Your task to perform on an android device: toggle notification dots Image 0: 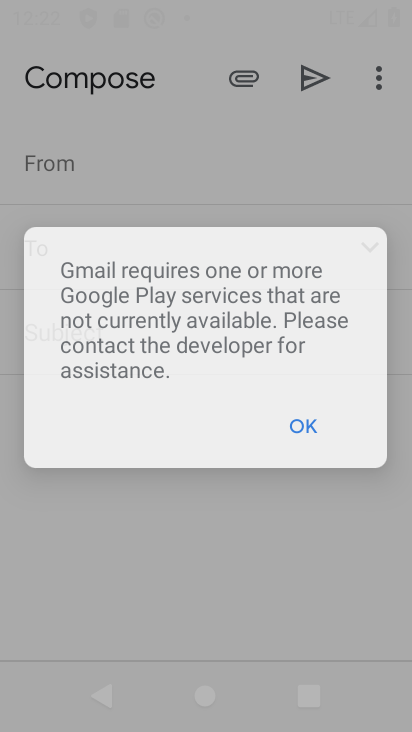
Step 0: drag from (278, 698) to (261, 227)
Your task to perform on an android device: toggle notification dots Image 1: 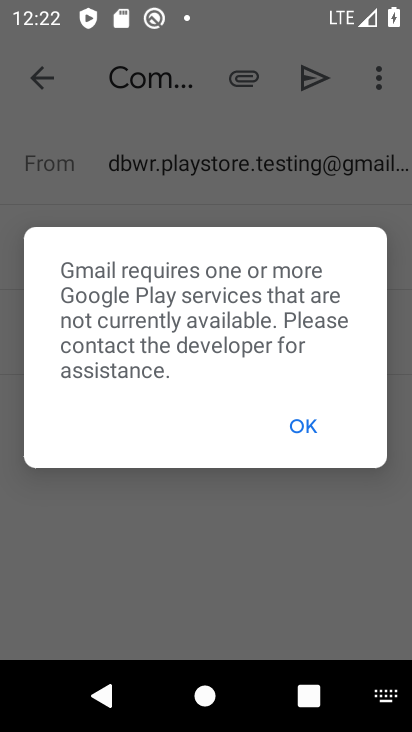
Step 1: click (304, 431)
Your task to perform on an android device: toggle notification dots Image 2: 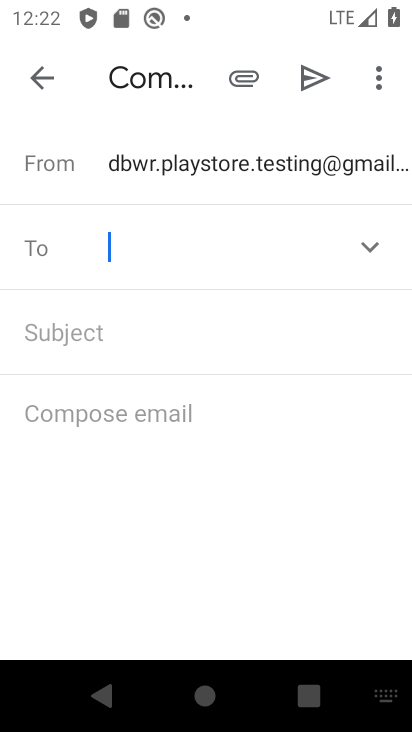
Step 2: click (294, 388)
Your task to perform on an android device: toggle notification dots Image 3: 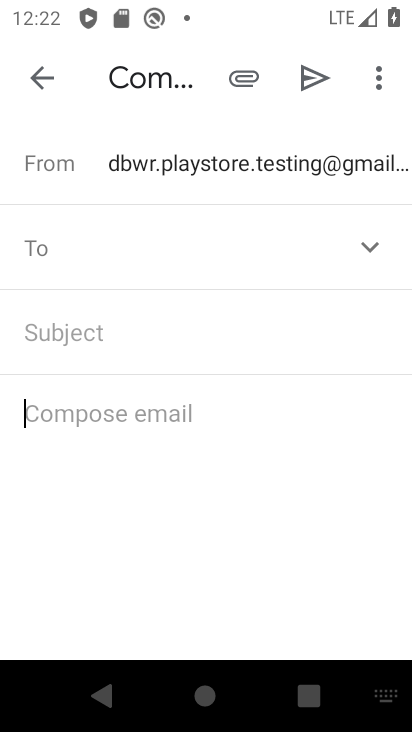
Step 3: click (47, 69)
Your task to perform on an android device: toggle notification dots Image 4: 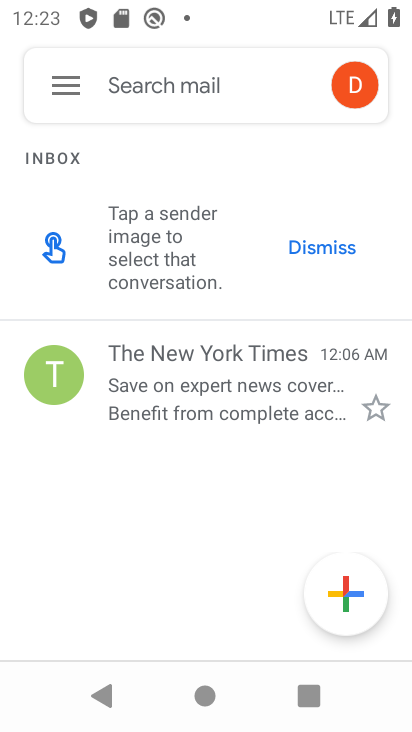
Step 4: press home button
Your task to perform on an android device: toggle notification dots Image 5: 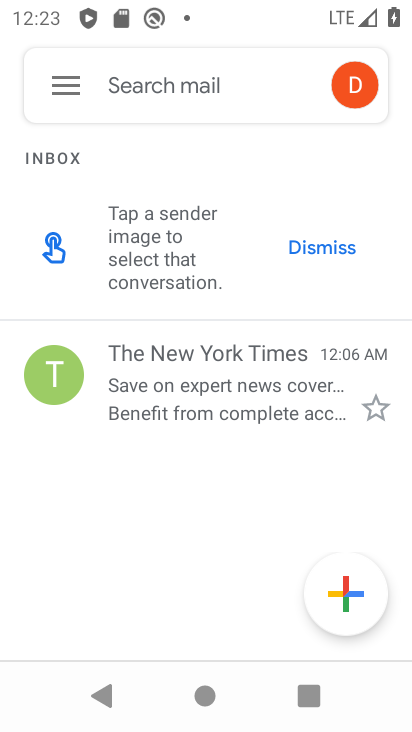
Step 5: press home button
Your task to perform on an android device: toggle notification dots Image 6: 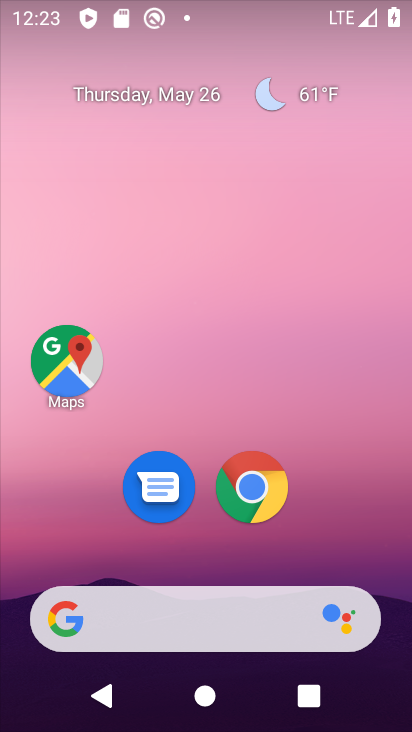
Step 6: drag from (275, 653) to (149, 118)
Your task to perform on an android device: toggle notification dots Image 7: 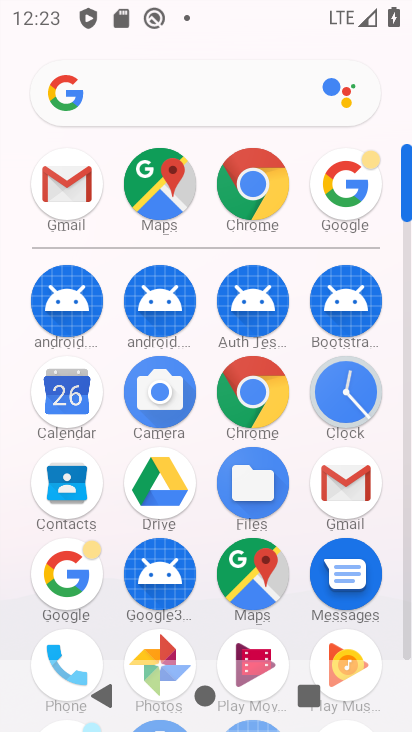
Step 7: click (258, 580)
Your task to perform on an android device: toggle notification dots Image 8: 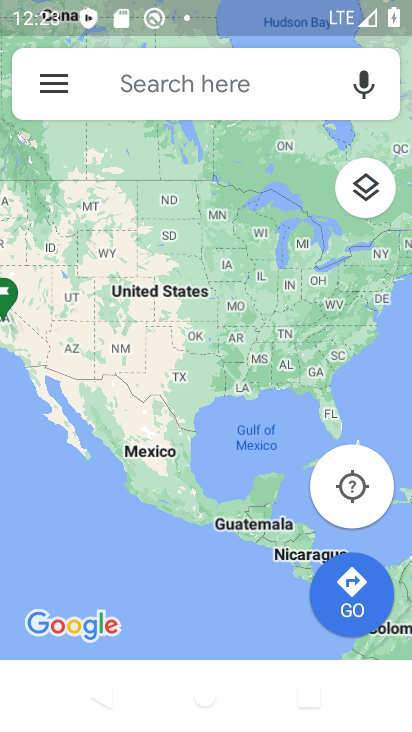
Step 8: press back button
Your task to perform on an android device: toggle notification dots Image 9: 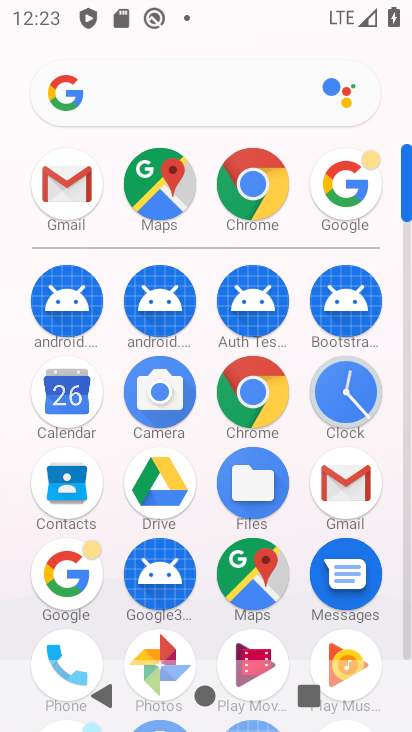
Step 9: drag from (202, 416) to (197, 176)
Your task to perform on an android device: toggle notification dots Image 10: 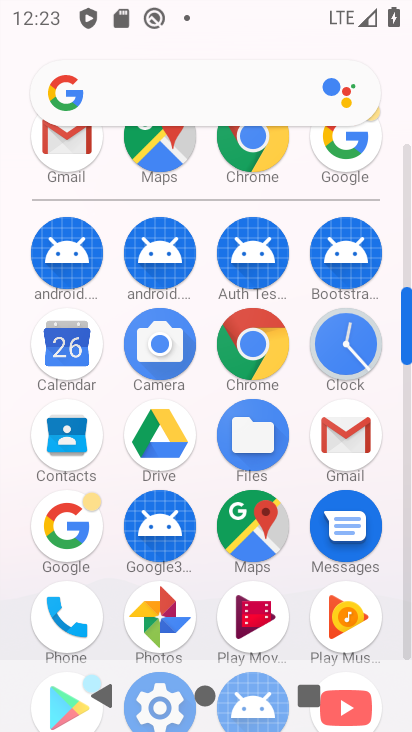
Step 10: drag from (177, 545) to (234, 391)
Your task to perform on an android device: toggle notification dots Image 11: 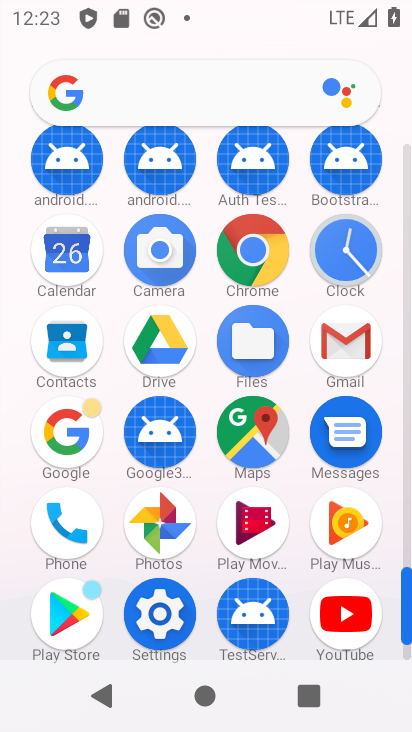
Step 11: click (151, 628)
Your task to perform on an android device: toggle notification dots Image 12: 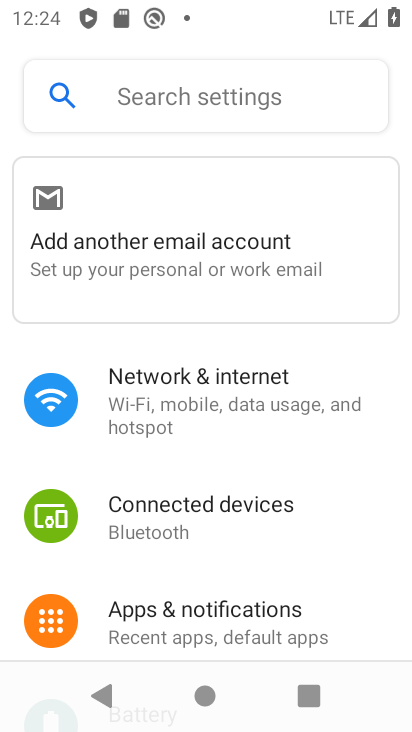
Step 12: click (246, 610)
Your task to perform on an android device: toggle notification dots Image 13: 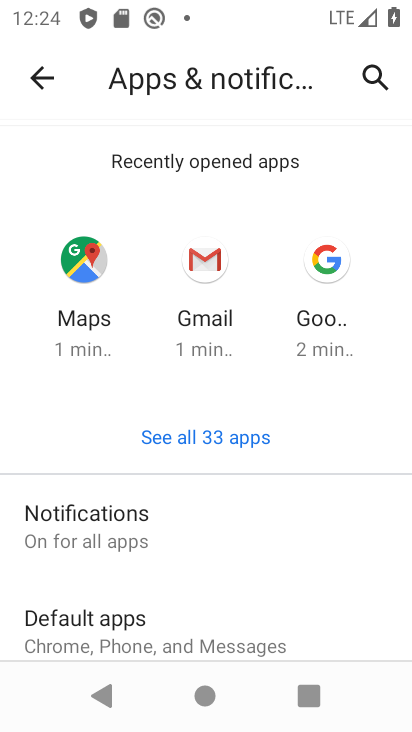
Step 13: drag from (90, 500) to (76, 263)
Your task to perform on an android device: toggle notification dots Image 14: 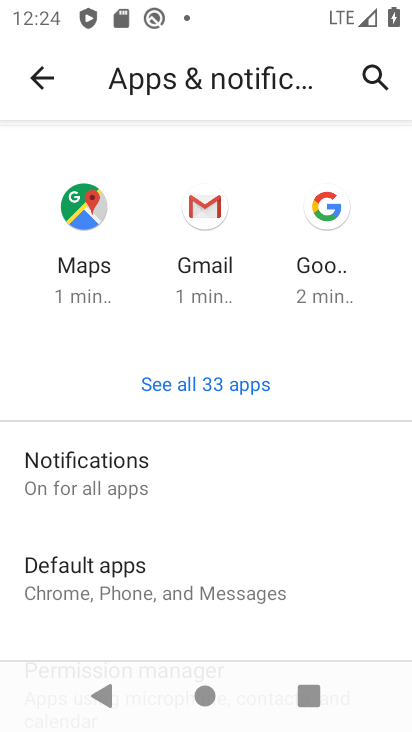
Step 14: drag from (165, 467) to (138, 276)
Your task to perform on an android device: toggle notification dots Image 15: 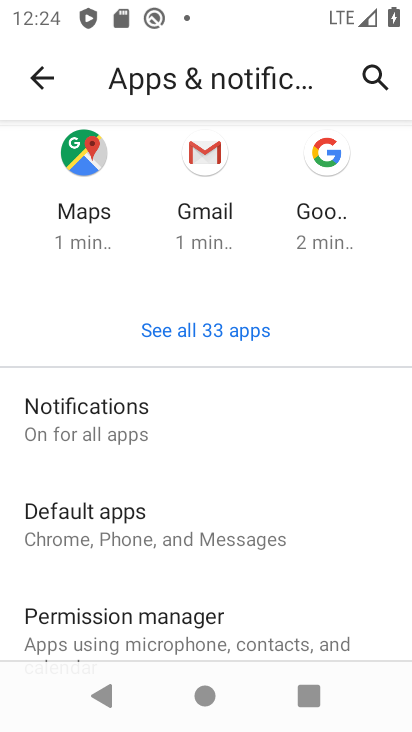
Step 15: drag from (91, 525) to (62, 267)
Your task to perform on an android device: toggle notification dots Image 16: 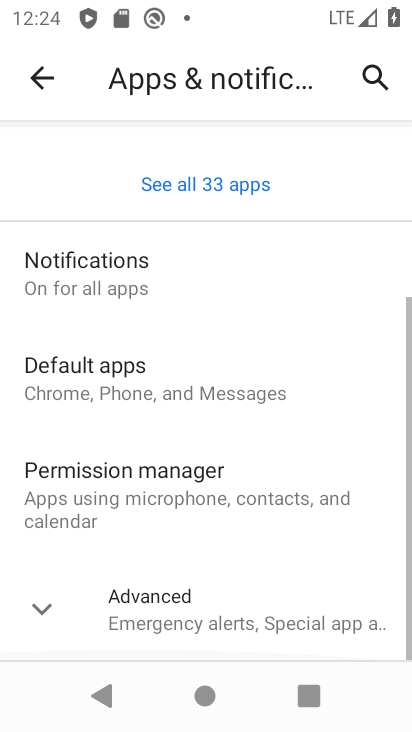
Step 16: drag from (180, 503) to (180, 207)
Your task to perform on an android device: toggle notification dots Image 17: 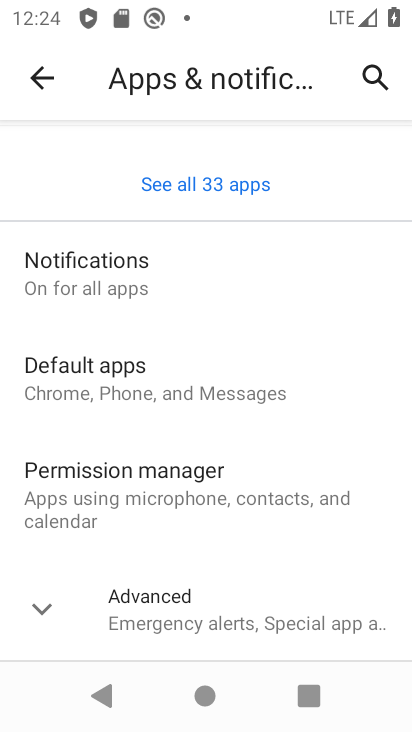
Step 17: click (35, 73)
Your task to perform on an android device: toggle notification dots Image 18: 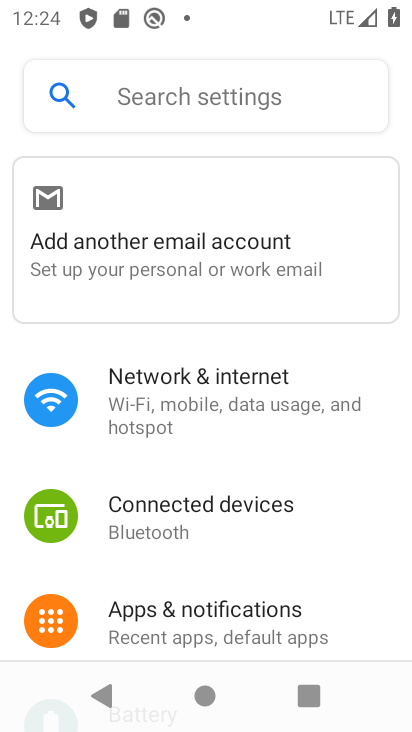
Step 18: drag from (249, 514) to (219, 272)
Your task to perform on an android device: toggle notification dots Image 19: 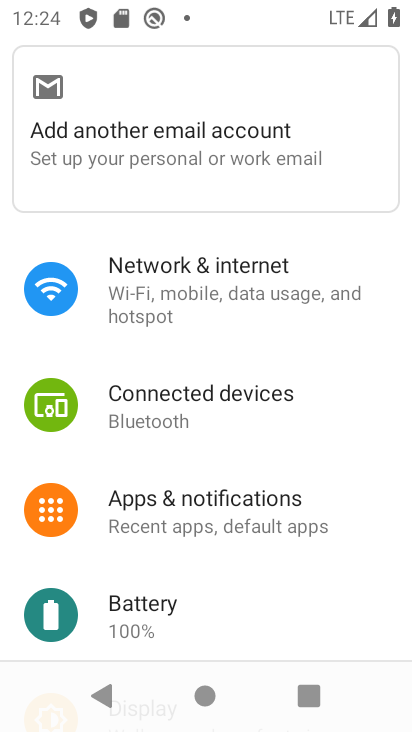
Step 19: click (197, 486)
Your task to perform on an android device: toggle notification dots Image 20: 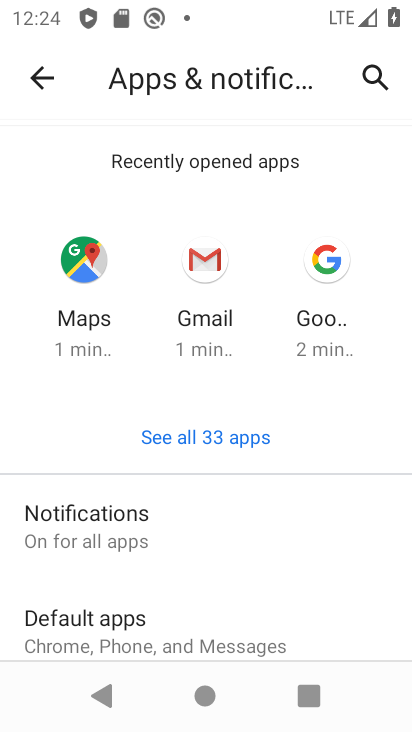
Step 20: click (94, 531)
Your task to perform on an android device: toggle notification dots Image 21: 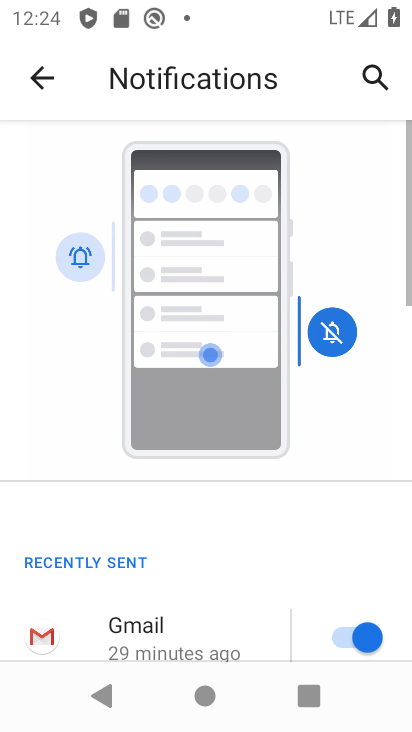
Step 21: drag from (255, 572) to (201, 228)
Your task to perform on an android device: toggle notification dots Image 22: 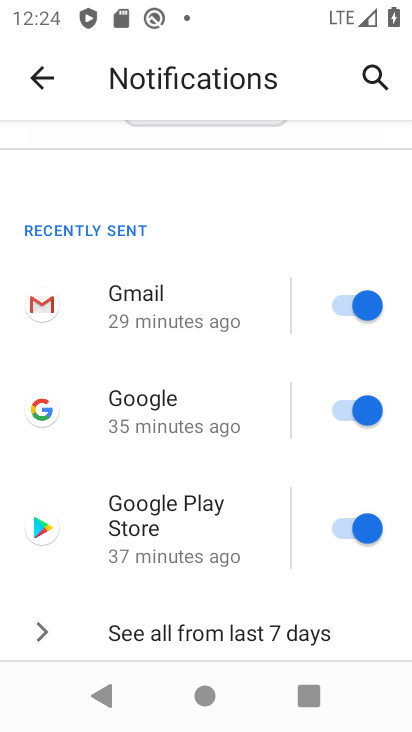
Step 22: drag from (239, 601) to (151, 205)
Your task to perform on an android device: toggle notification dots Image 23: 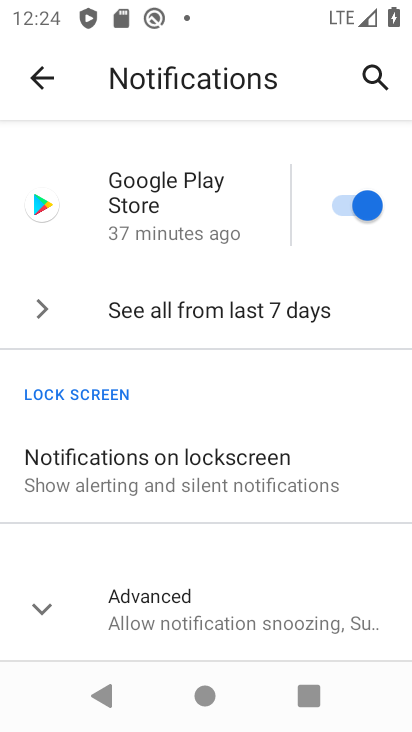
Step 23: click (156, 612)
Your task to perform on an android device: toggle notification dots Image 24: 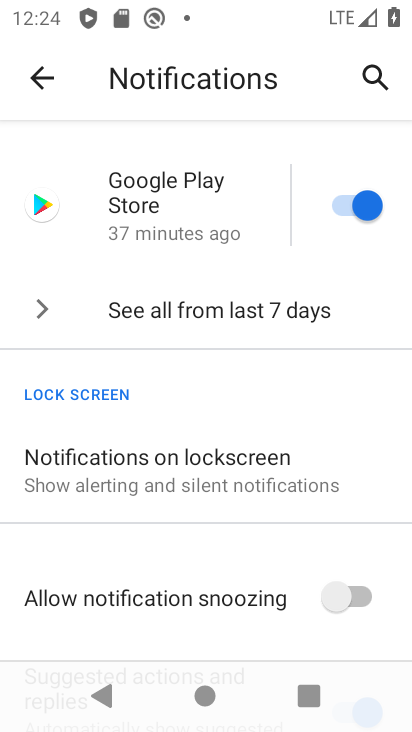
Step 24: drag from (302, 582) to (247, 287)
Your task to perform on an android device: toggle notification dots Image 25: 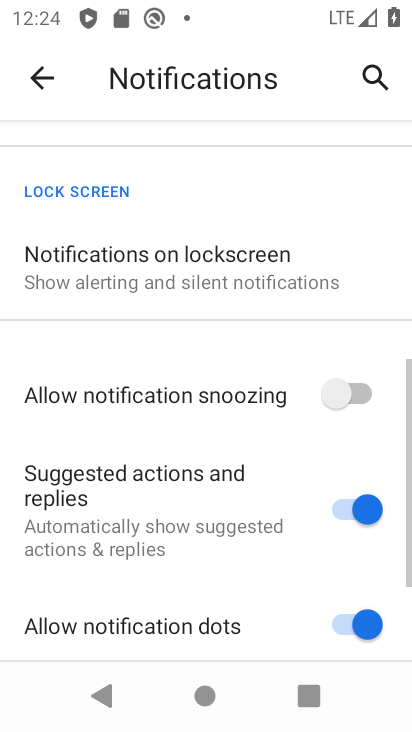
Step 25: drag from (215, 502) to (170, 146)
Your task to perform on an android device: toggle notification dots Image 26: 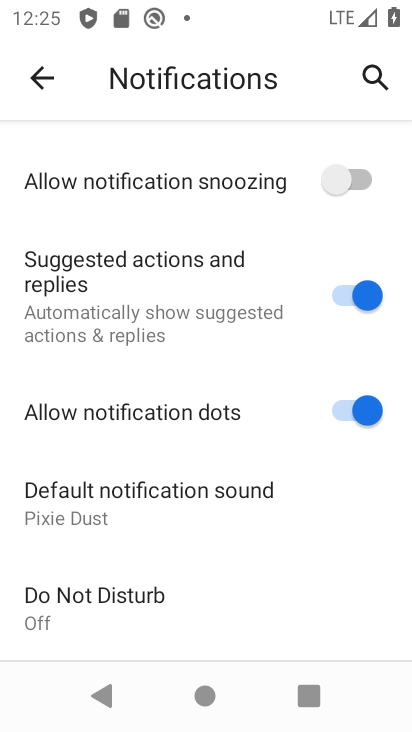
Step 26: click (364, 404)
Your task to perform on an android device: toggle notification dots Image 27: 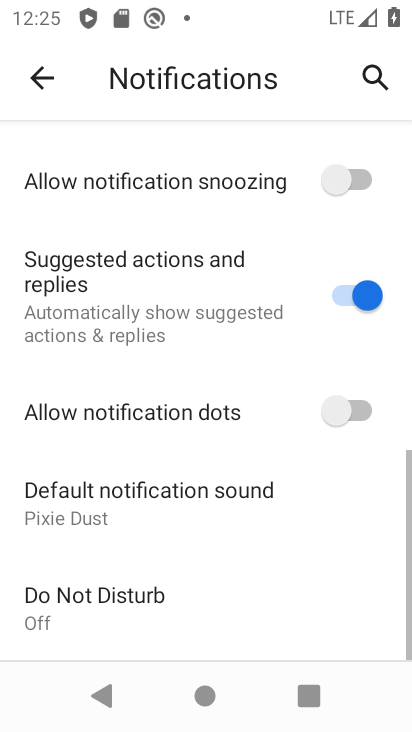
Step 27: task complete